Your task to perform on an android device: Open ESPN.com Image 0: 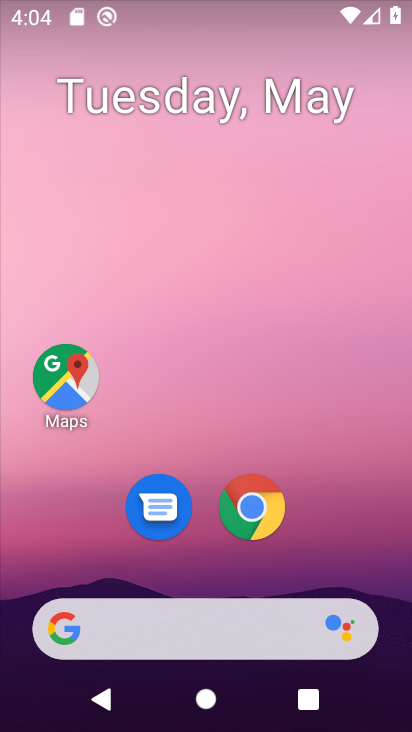
Step 0: click (252, 505)
Your task to perform on an android device: Open ESPN.com Image 1: 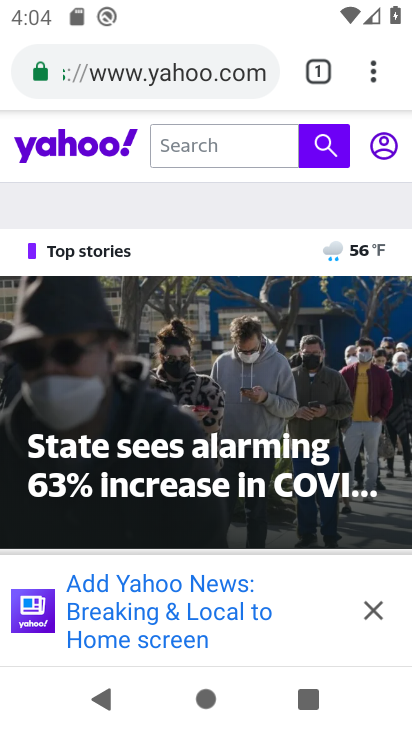
Step 1: click (222, 56)
Your task to perform on an android device: Open ESPN.com Image 2: 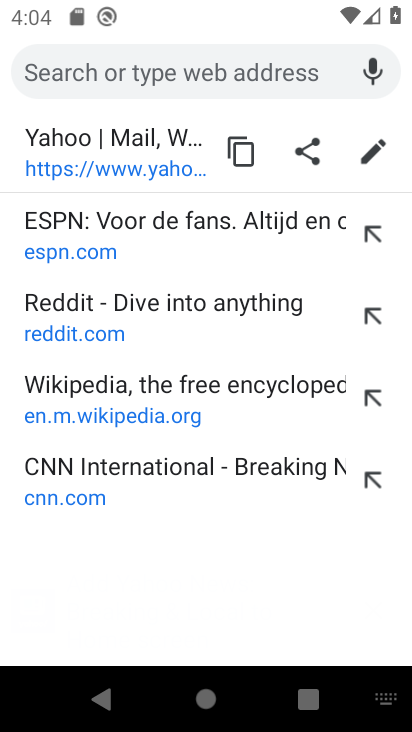
Step 2: type "ESPN.com"
Your task to perform on an android device: Open ESPN.com Image 3: 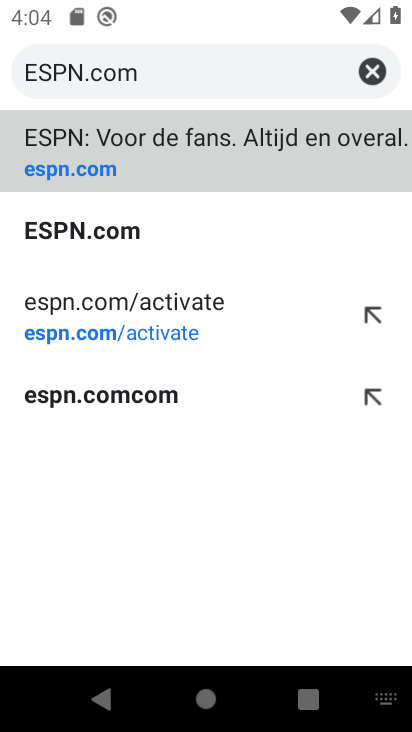
Step 3: click (81, 155)
Your task to perform on an android device: Open ESPN.com Image 4: 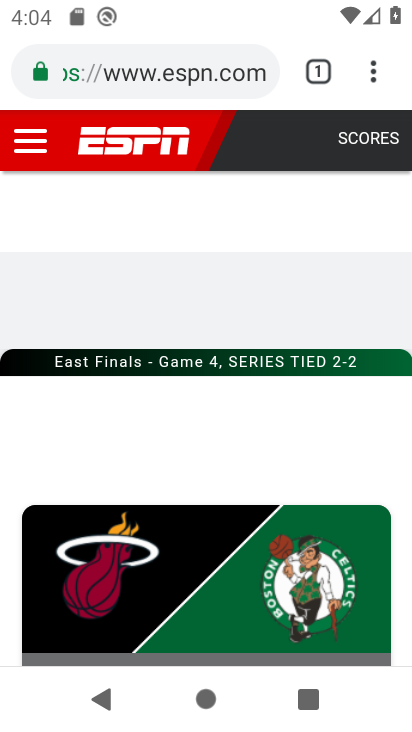
Step 4: task complete